Your task to perform on an android device: Open my contact list Image 0: 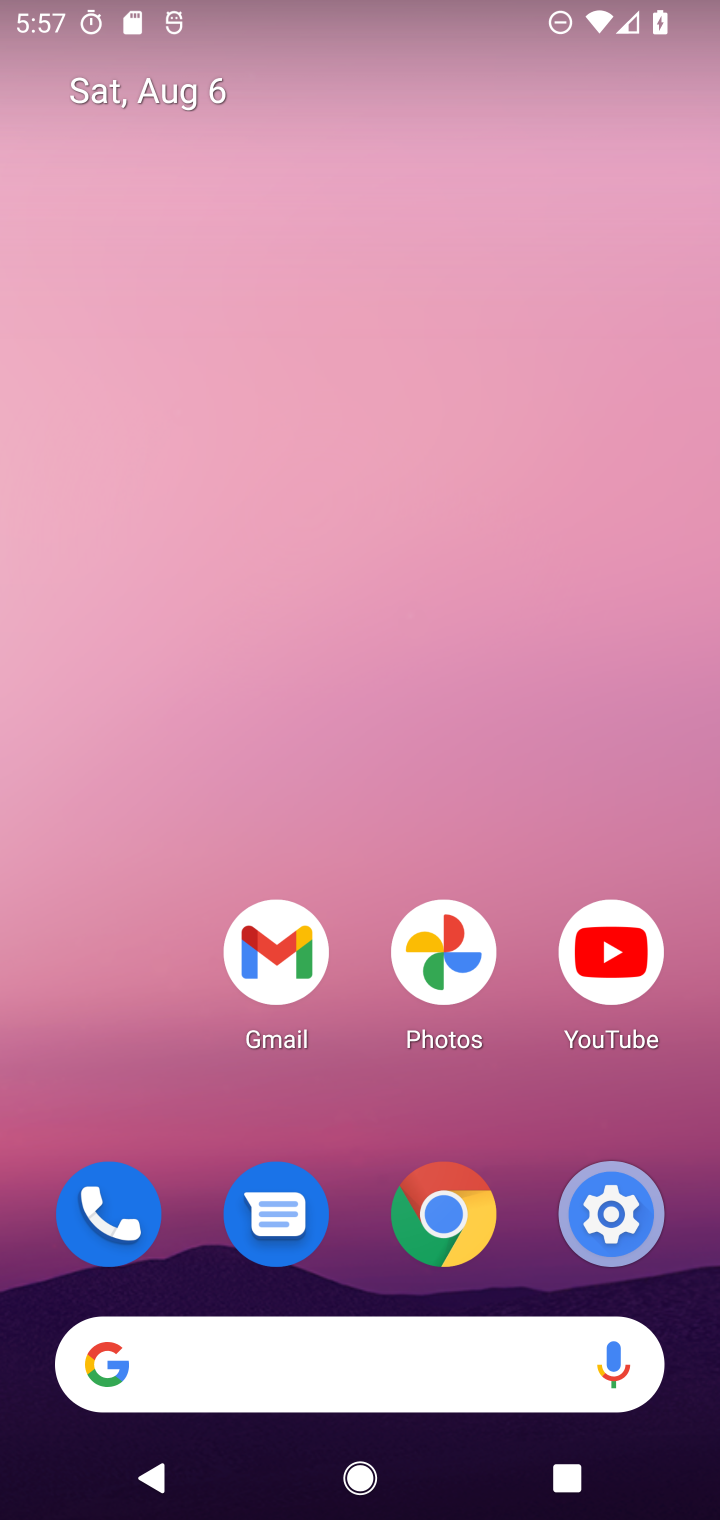
Step 0: drag from (470, 350) to (518, 39)
Your task to perform on an android device: Open my contact list Image 1: 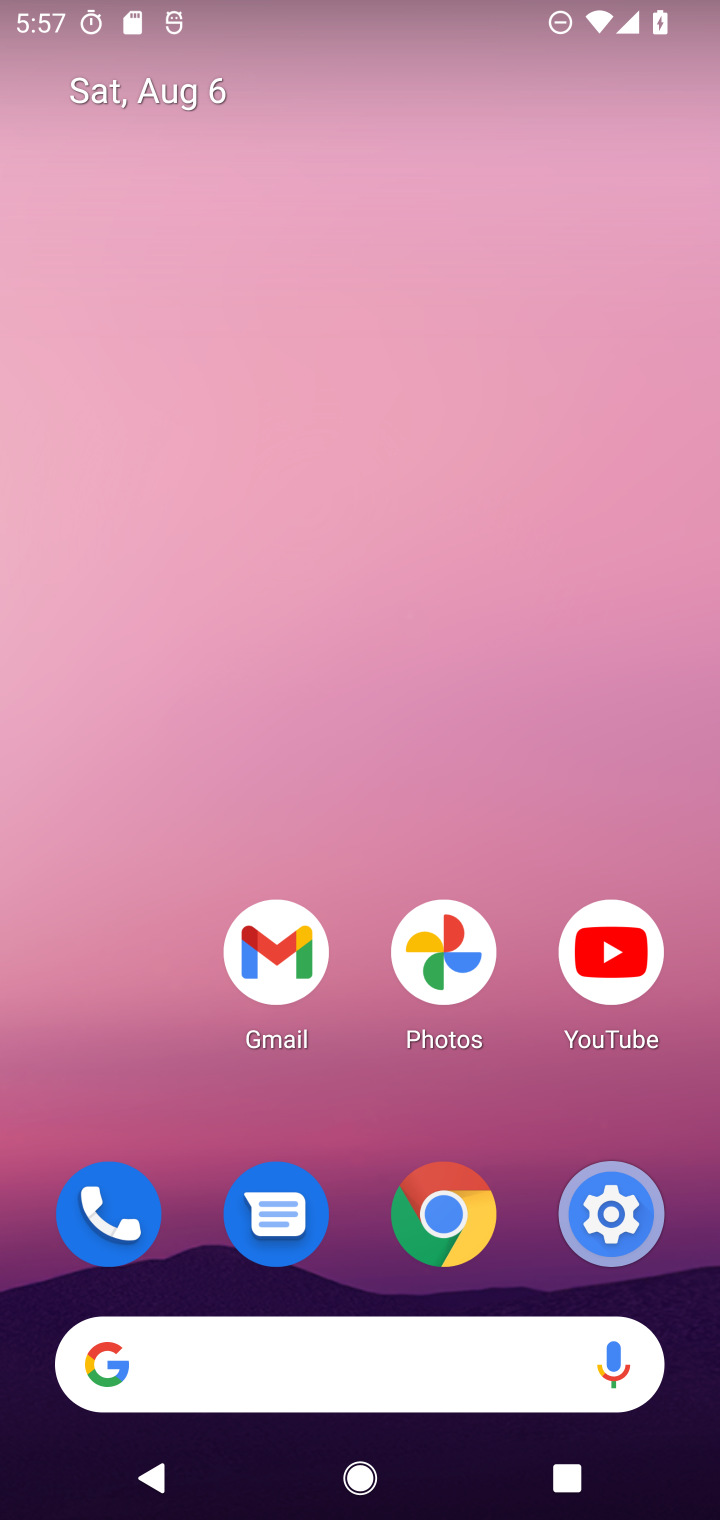
Step 1: drag from (412, 649) to (437, 442)
Your task to perform on an android device: Open my contact list Image 2: 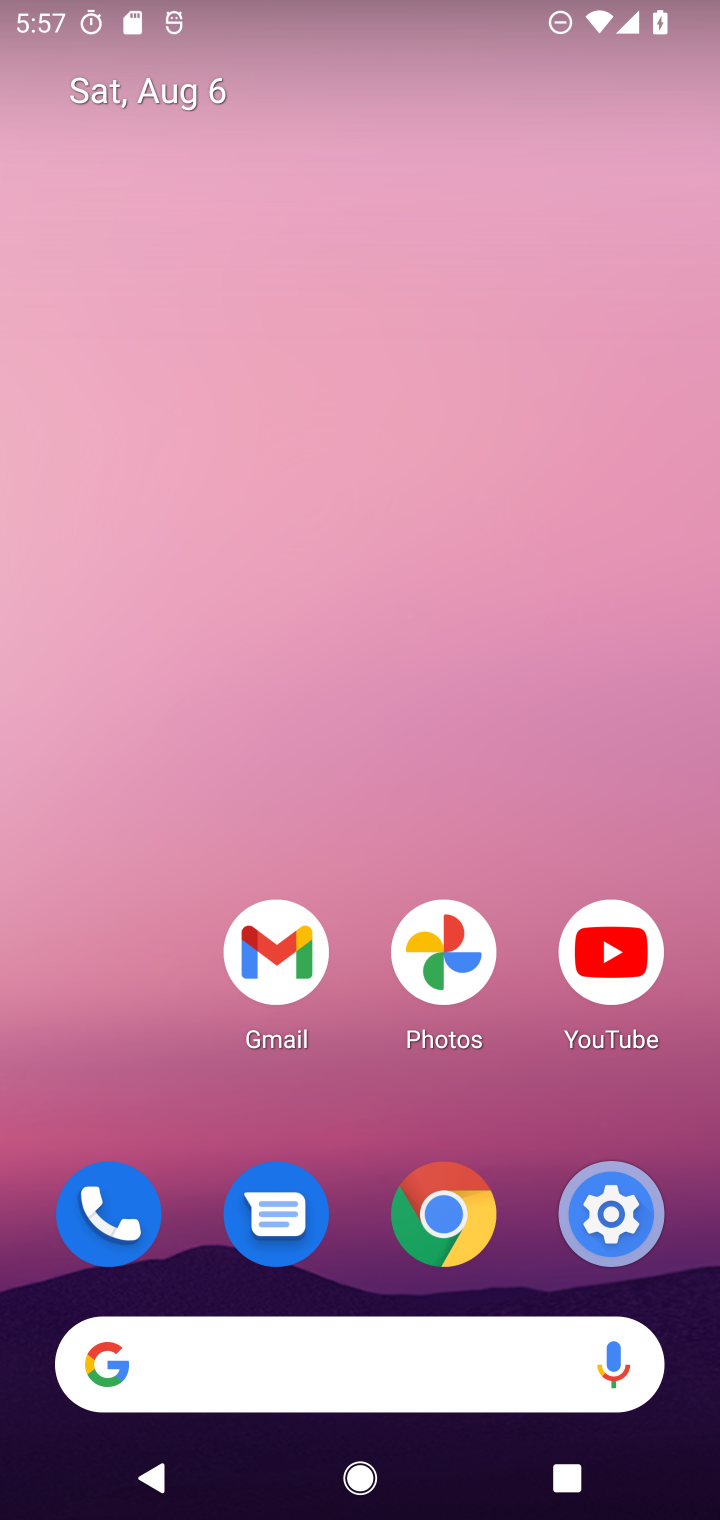
Step 2: drag from (357, 1231) to (323, 110)
Your task to perform on an android device: Open my contact list Image 3: 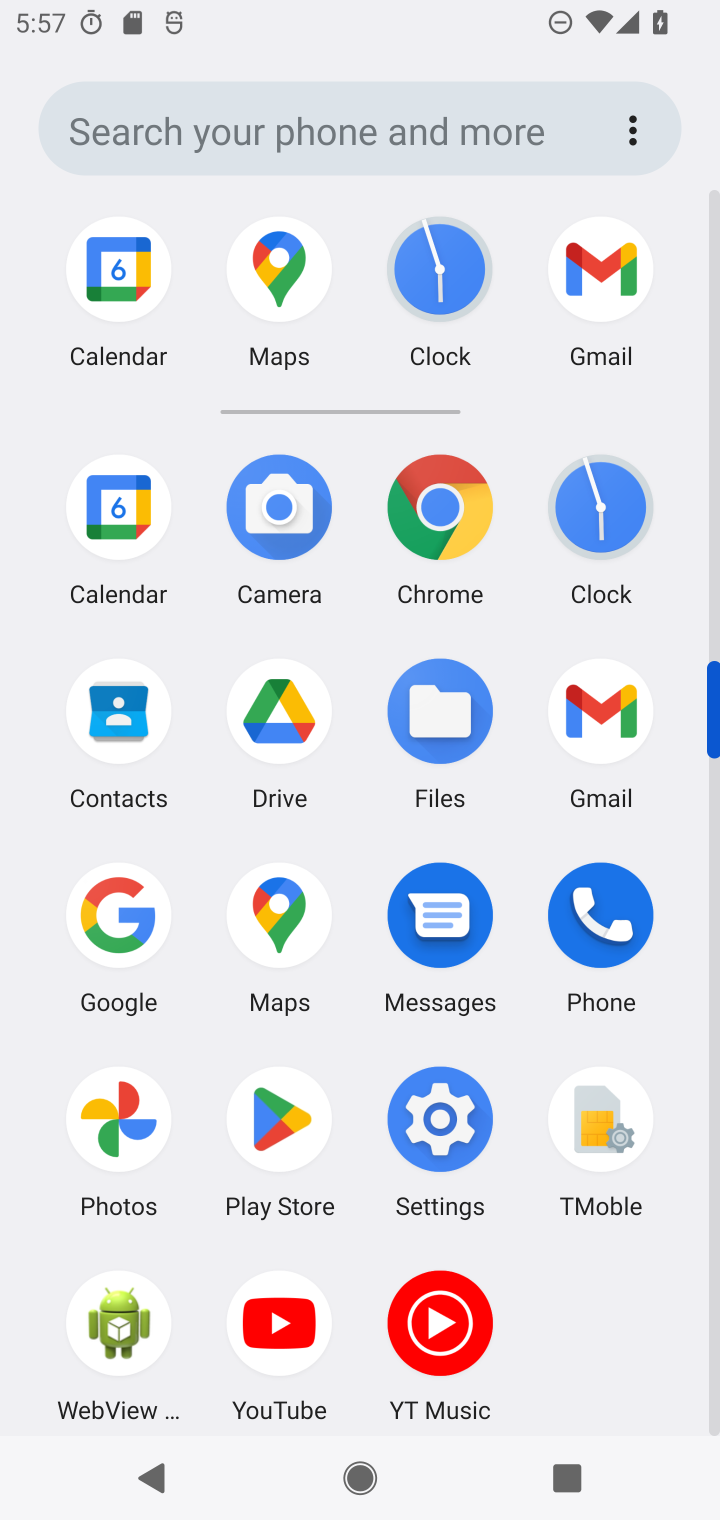
Step 3: click (138, 749)
Your task to perform on an android device: Open my contact list Image 4: 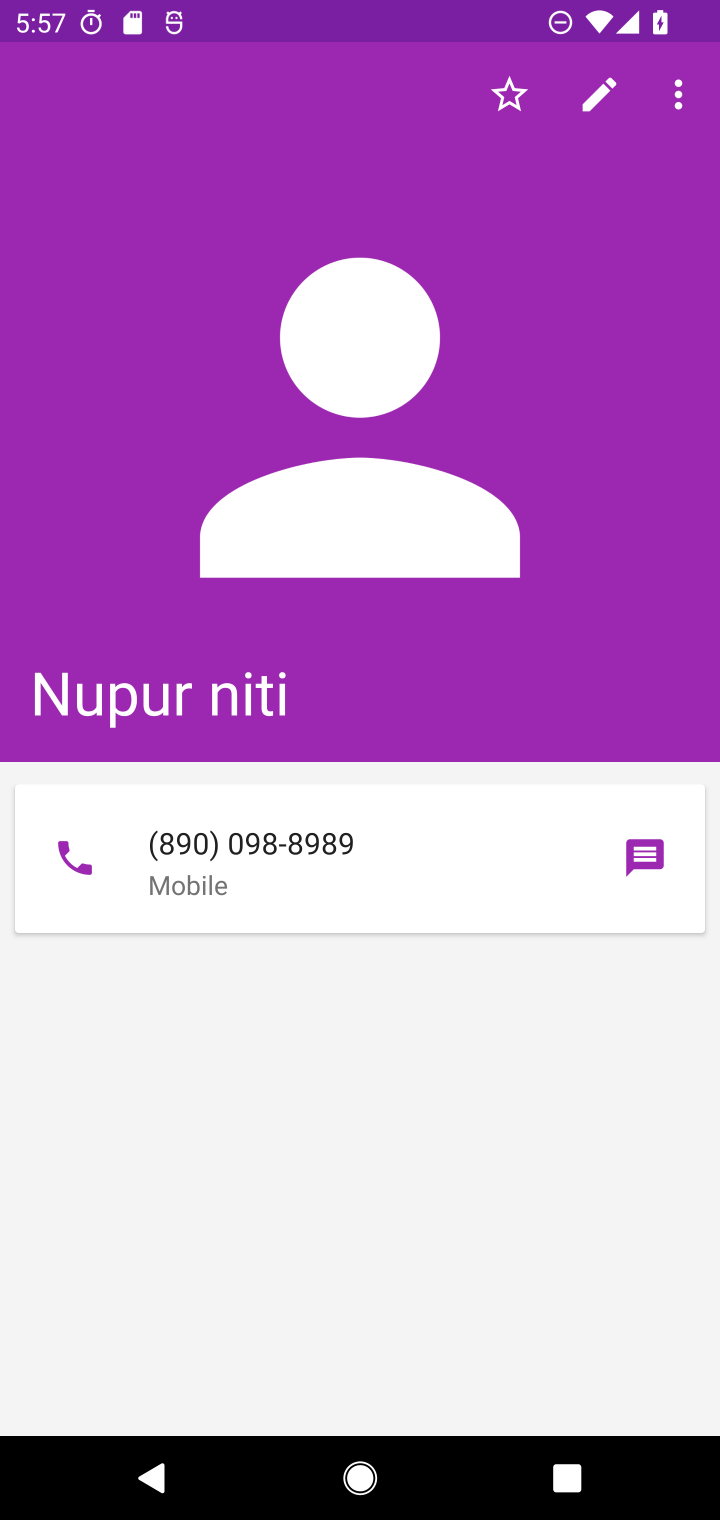
Step 4: task complete